Your task to perform on an android device: all mails in gmail Image 0: 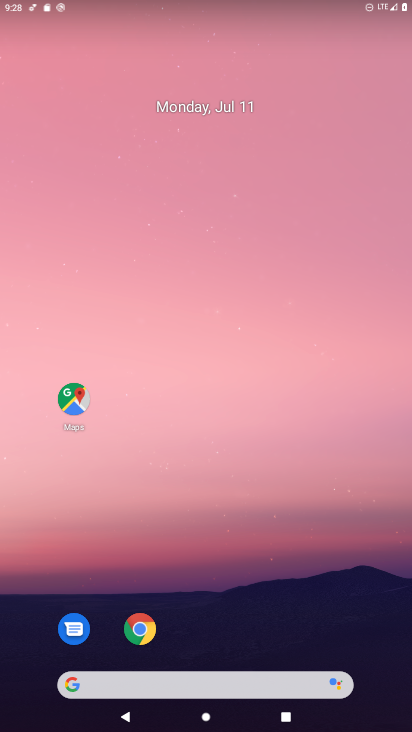
Step 0: drag from (225, 635) to (302, 129)
Your task to perform on an android device: all mails in gmail Image 1: 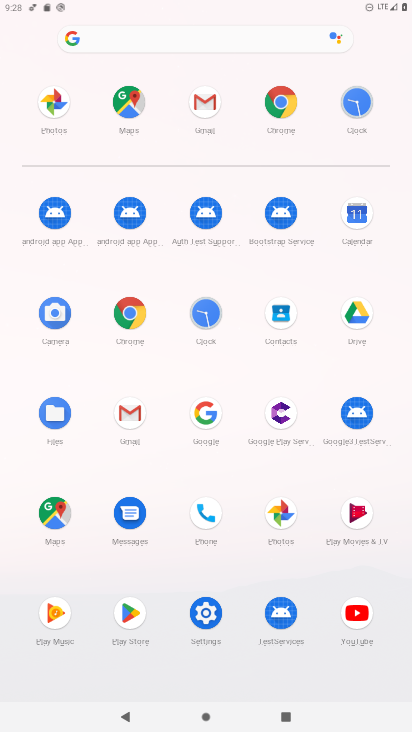
Step 1: click (209, 109)
Your task to perform on an android device: all mails in gmail Image 2: 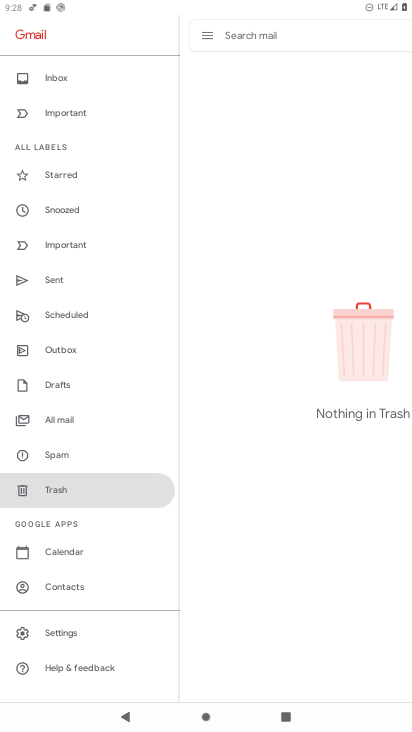
Step 2: click (94, 420)
Your task to perform on an android device: all mails in gmail Image 3: 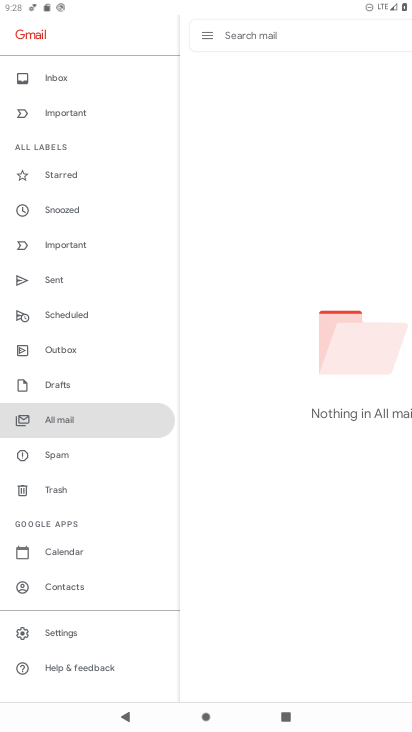
Step 3: task complete